Your task to perform on an android device: Open the map Image 0: 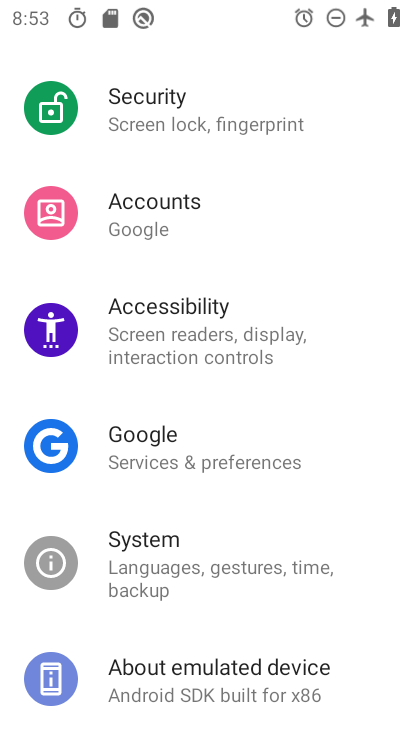
Step 0: press home button
Your task to perform on an android device: Open the map Image 1: 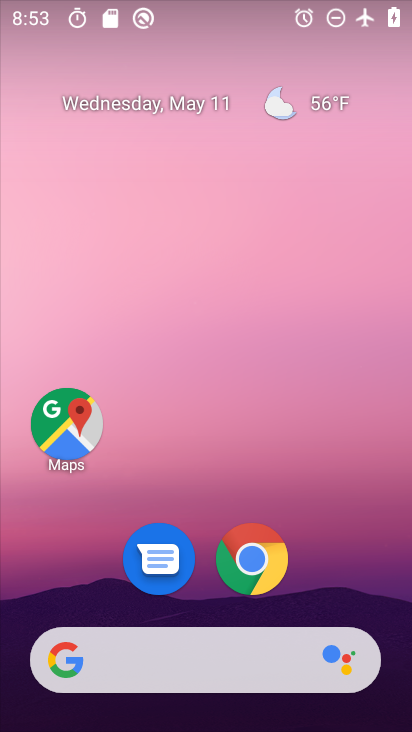
Step 1: click (59, 423)
Your task to perform on an android device: Open the map Image 2: 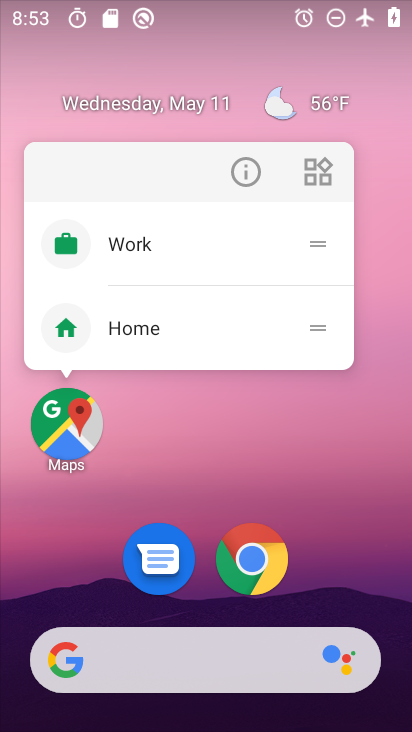
Step 2: click (59, 422)
Your task to perform on an android device: Open the map Image 3: 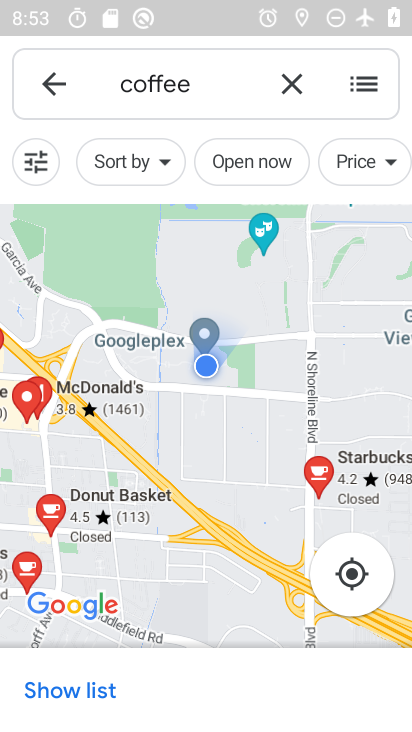
Step 3: task complete